Your task to perform on an android device: What's on my calendar tomorrow? Image 0: 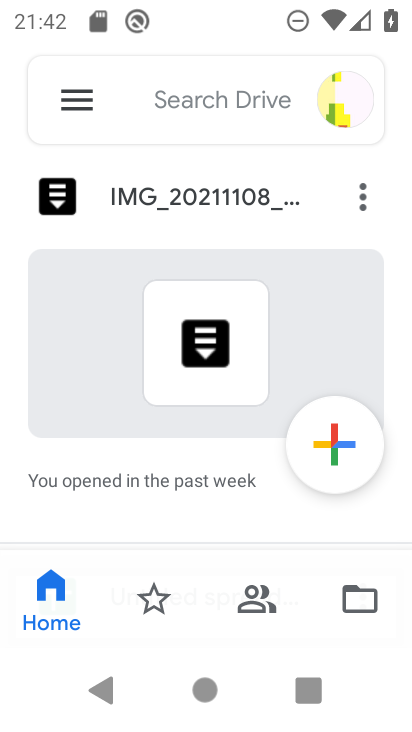
Step 0: press home button
Your task to perform on an android device: What's on my calendar tomorrow? Image 1: 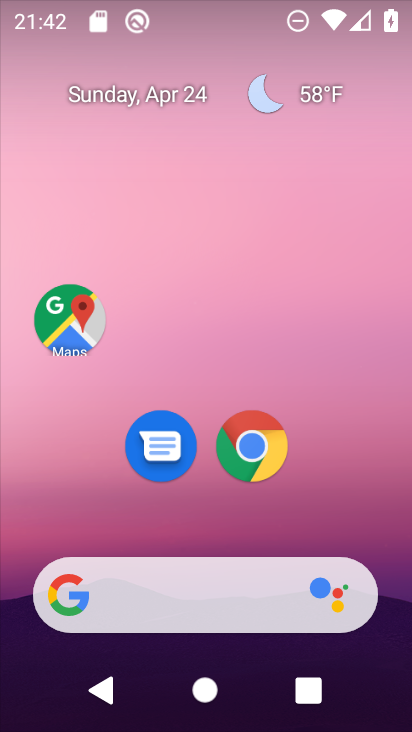
Step 1: drag from (183, 597) to (267, 60)
Your task to perform on an android device: What's on my calendar tomorrow? Image 2: 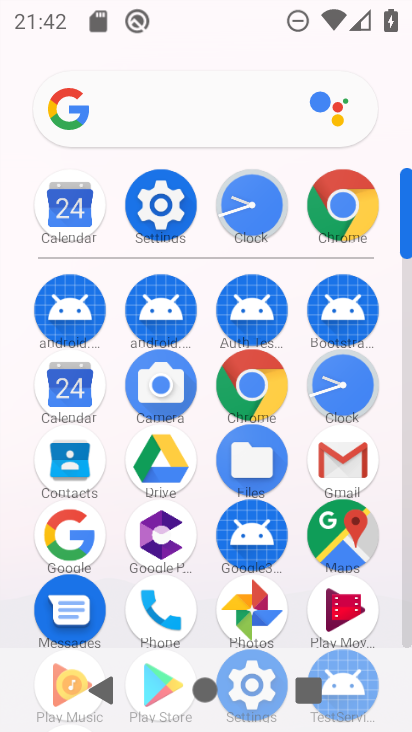
Step 2: click (80, 400)
Your task to perform on an android device: What's on my calendar tomorrow? Image 3: 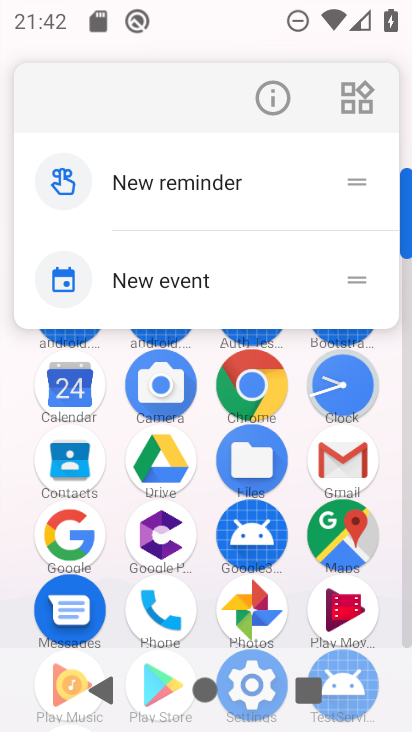
Step 3: click (72, 393)
Your task to perform on an android device: What's on my calendar tomorrow? Image 4: 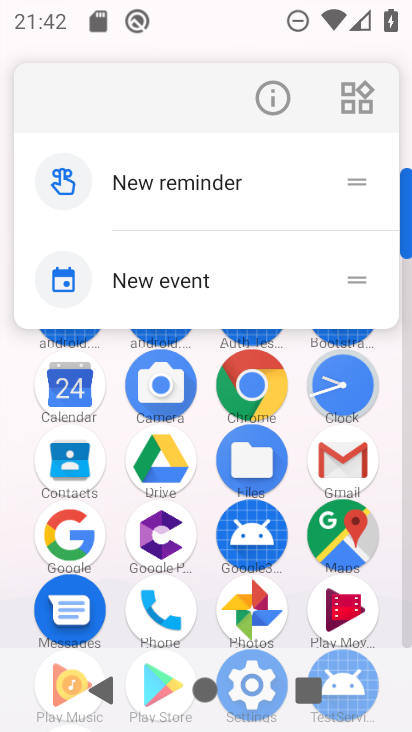
Step 4: click (72, 393)
Your task to perform on an android device: What's on my calendar tomorrow? Image 5: 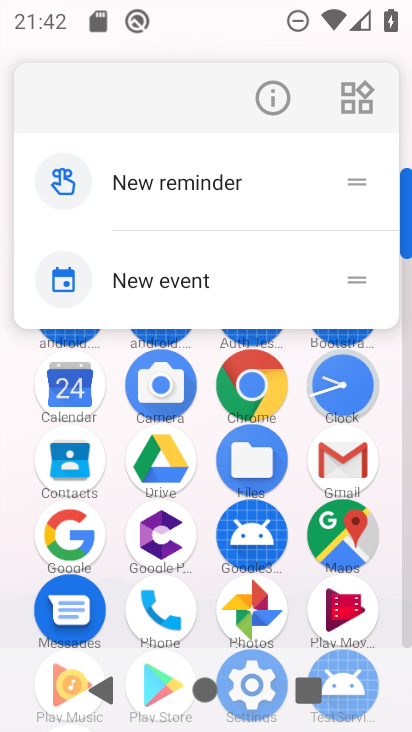
Step 5: click (66, 393)
Your task to perform on an android device: What's on my calendar tomorrow? Image 6: 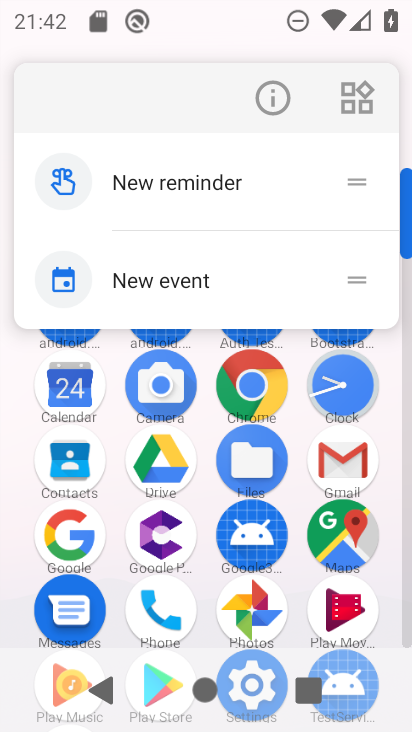
Step 6: click (66, 393)
Your task to perform on an android device: What's on my calendar tomorrow? Image 7: 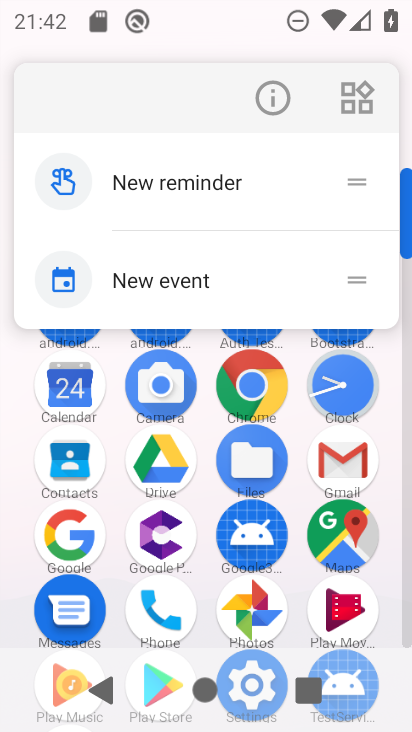
Step 7: click (78, 397)
Your task to perform on an android device: What's on my calendar tomorrow? Image 8: 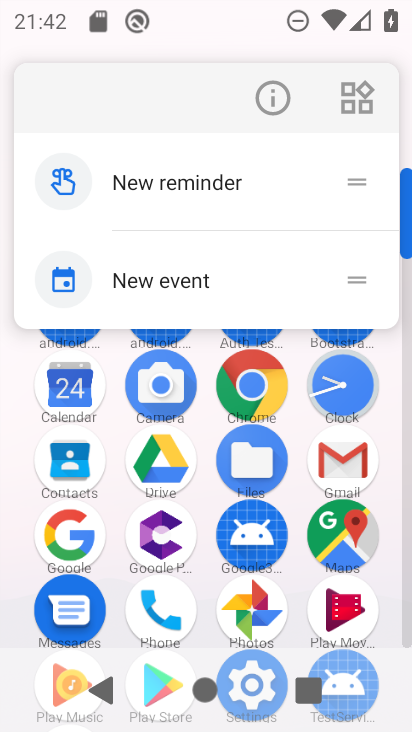
Step 8: click (83, 397)
Your task to perform on an android device: What's on my calendar tomorrow? Image 9: 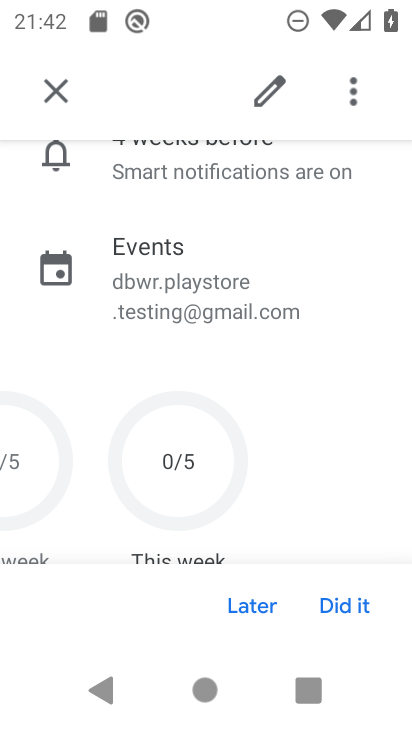
Step 9: click (62, 84)
Your task to perform on an android device: What's on my calendar tomorrow? Image 10: 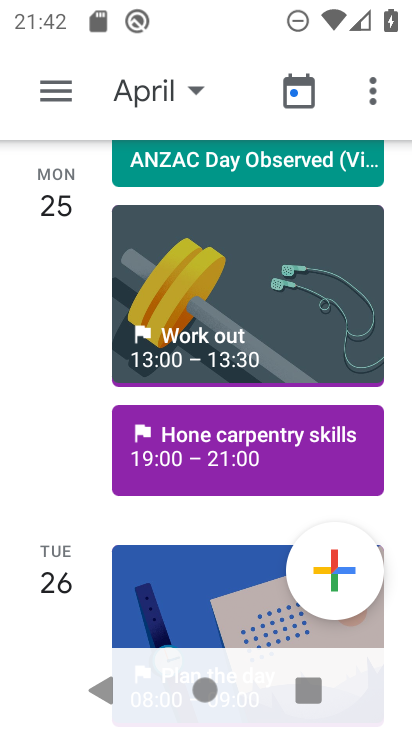
Step 10: click (155, 86)
Your task to perform on an android device: What's on my calendar tomorrow? Image 11: 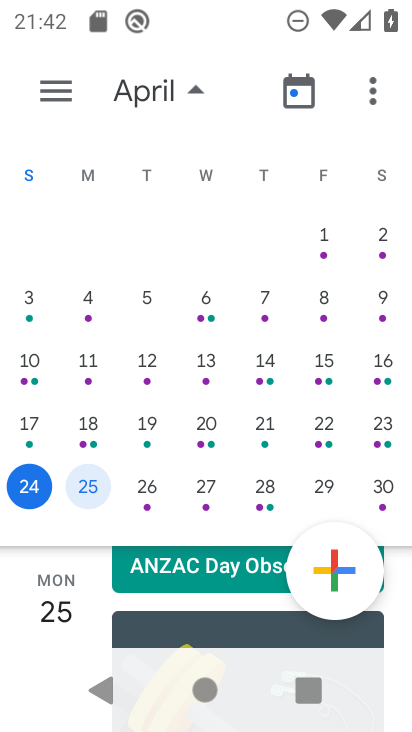
Step 11: click (90, 491)
Your task to perform on an android device: What's on my calendar tomorrow? Image 12: 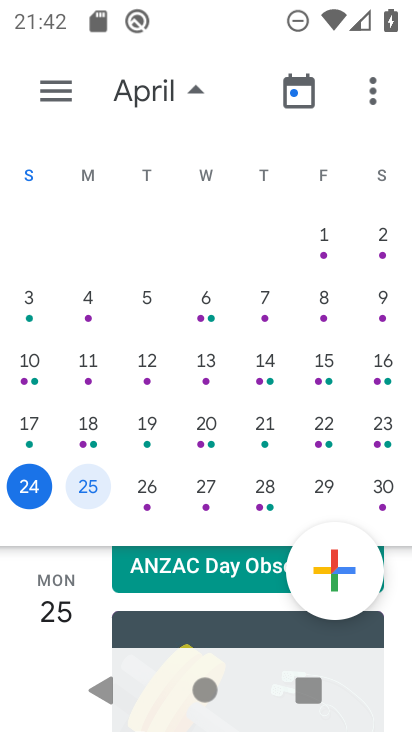
Step 12: click (57, 86)
Your task to perform on an android device: What's on my calendar tomorrow? Image 13: 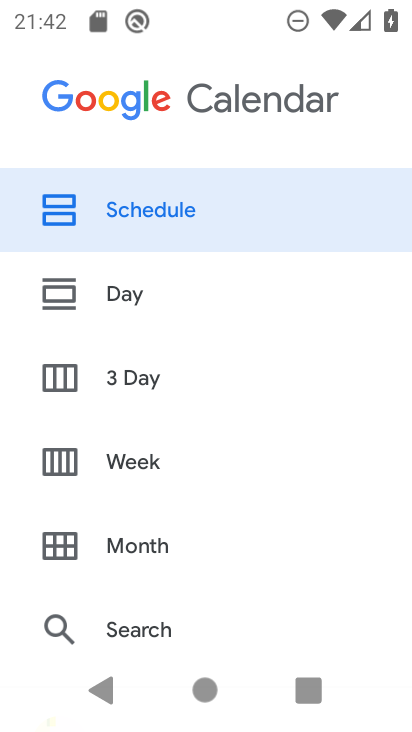
Step 13: click (131, 292)
Your task to perform on an android device: What's on my calendar tomorrow? Image 14: 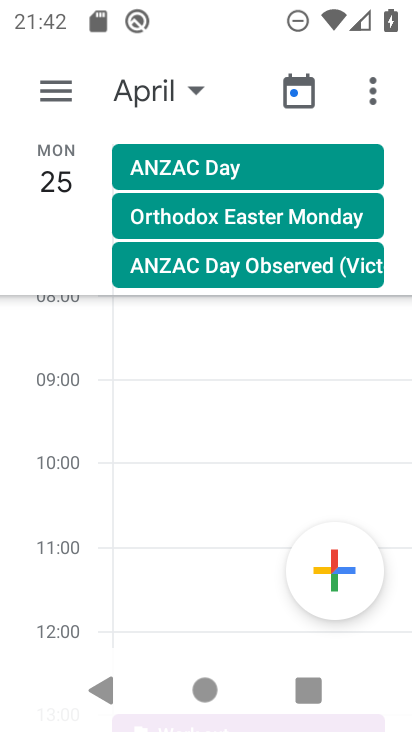
Step 14: click (46, 82)
Your task to perform on an android device: What's on my calendar tomorrow? Image 15: 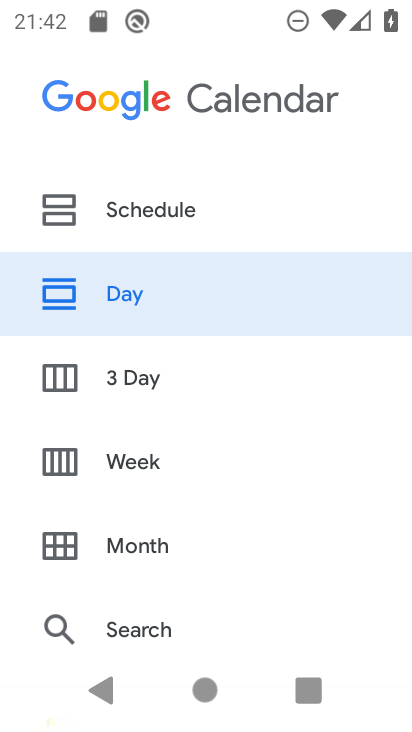
Step 15: click (127, 208)
Your task to perform on an android device: What's on my calendar tomorrow? Image 16: 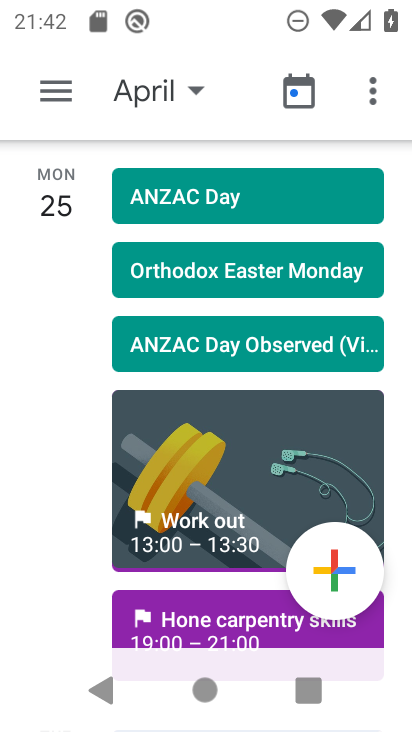
Step 16: task complete